Your task to perform on an android device: Open network settings Image 0: 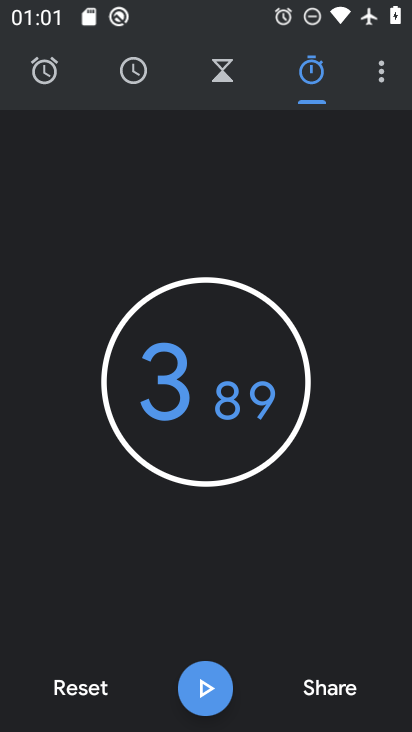
Step 0: press home button
Your task to perform on an android device: Open network settings Image 1: 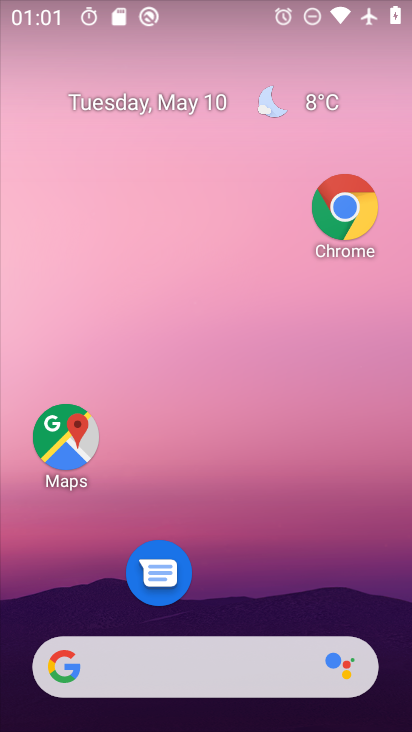
Step 1: drag from (286, 577) to (277, 203)
Your task to perform on an android device: Open network settings Image 2: 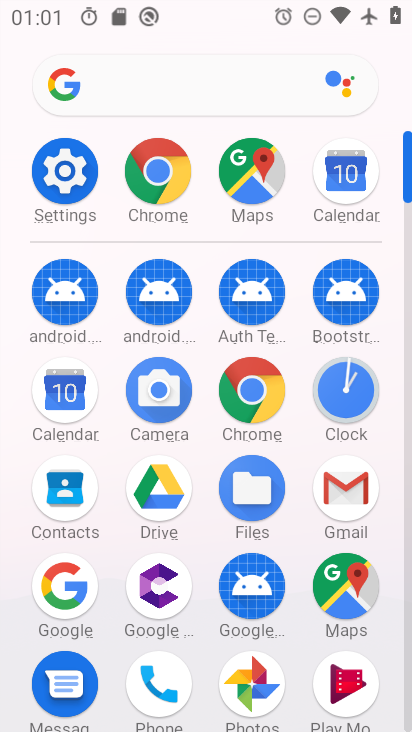
Step 2: click (61, 160)
Your task to perform on an android device: Open network settings Image 3: 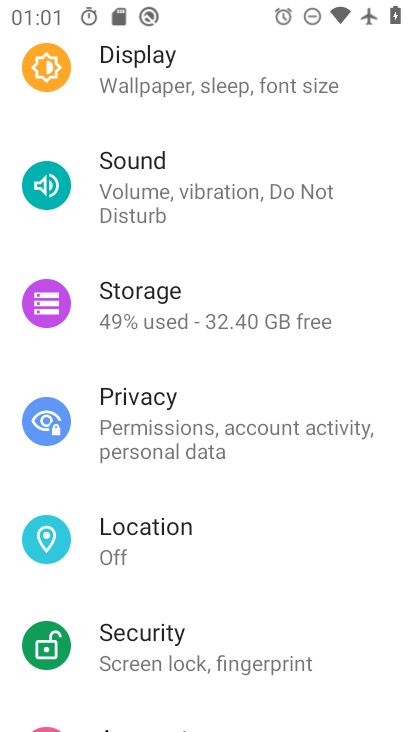
Step 3: drag from (250, 106) to (316, 620)
Your task to perform on an android device: Open network settings Image 4: 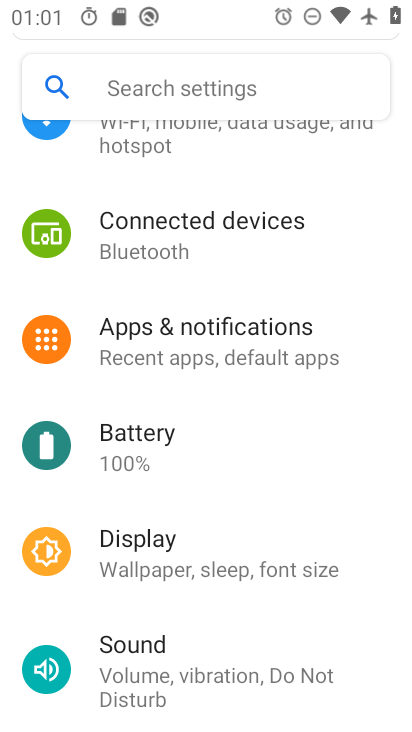
Step 4: drag from (250, 231) to (244, 537)
Your task to perform on an android device: Open network settings Image 5: 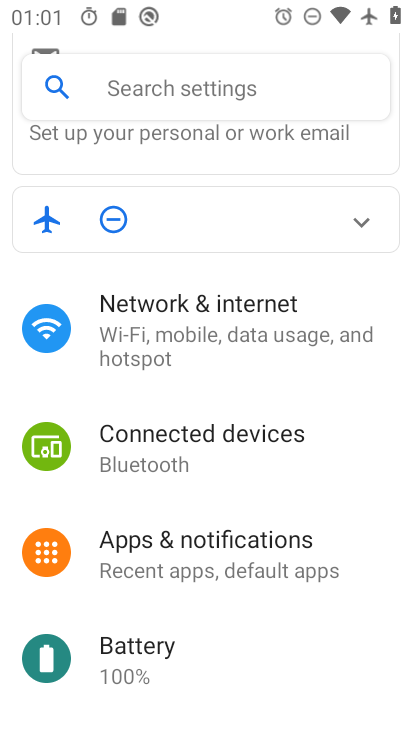
Step 5: click (243, 309)
Your task to perform on an android device: Open network settings Image 6: 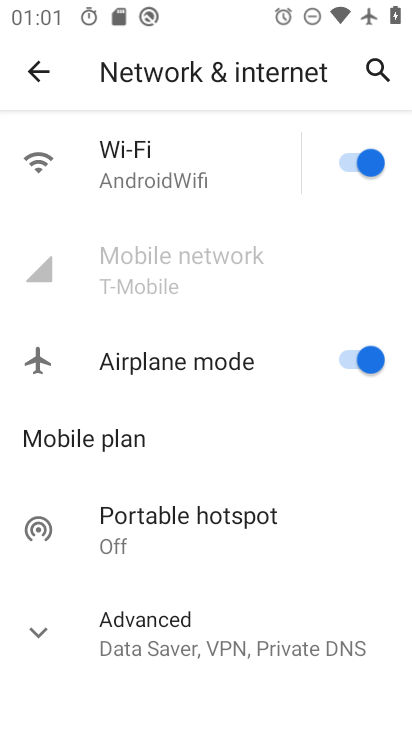
Step 6: task complete